Your task to perform on an android device: turn off location history Image 0: 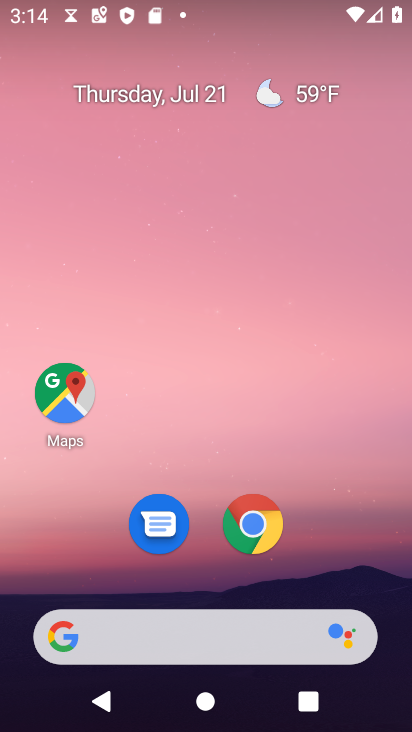
Step 0: click (60, 389)
Your task to perform on an android device: turn off location history Image 1: 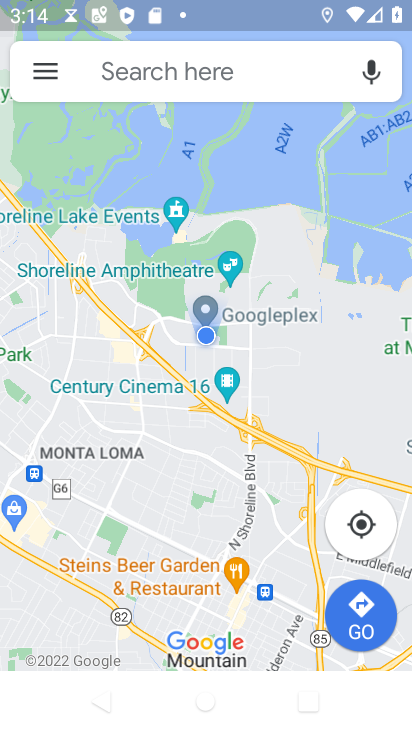
Step 1: click (52, 62)
Your task to perform on an android device: turn off location history Image 2: 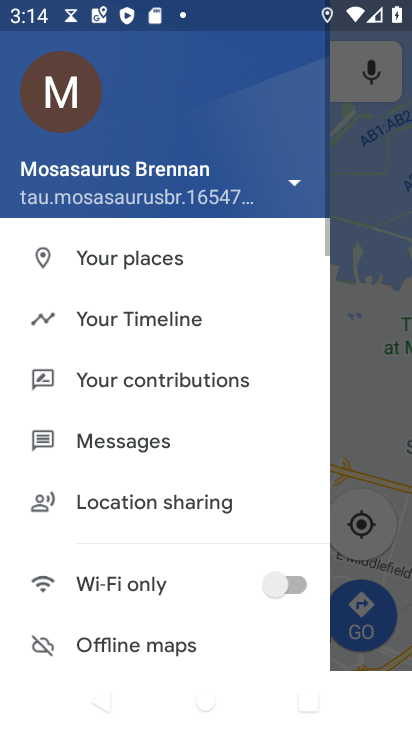
Step 2: click (181, 321)
Your task to perform on an android device: turn off location history Image 3: 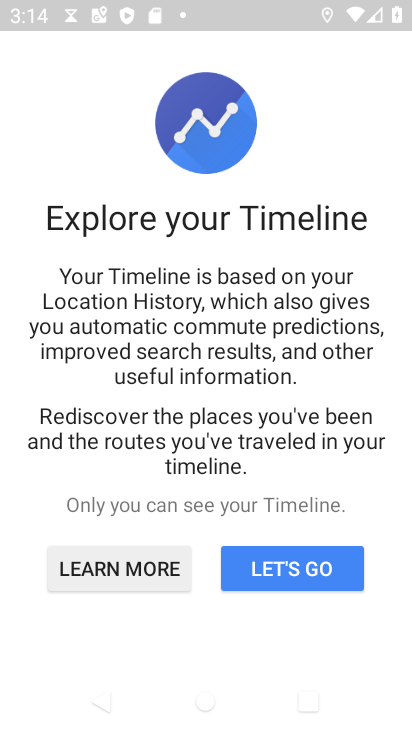
Step 3: click (274, 576)
Your task to perform on an android device: turn off location history Image 4: 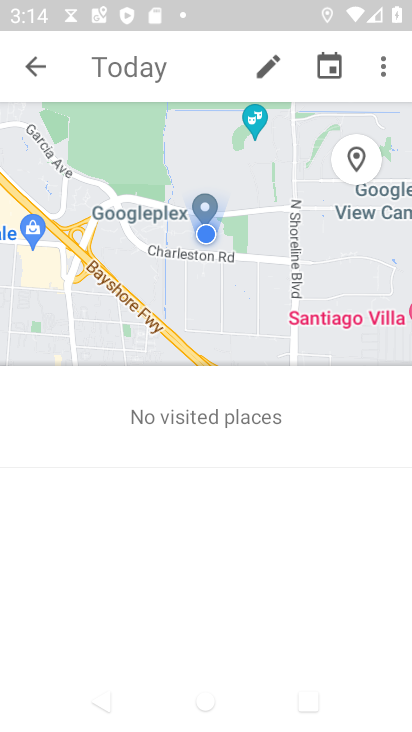
Step 4: click (383, 59)
Your task to perform on an android device: turn off location history Image 5: 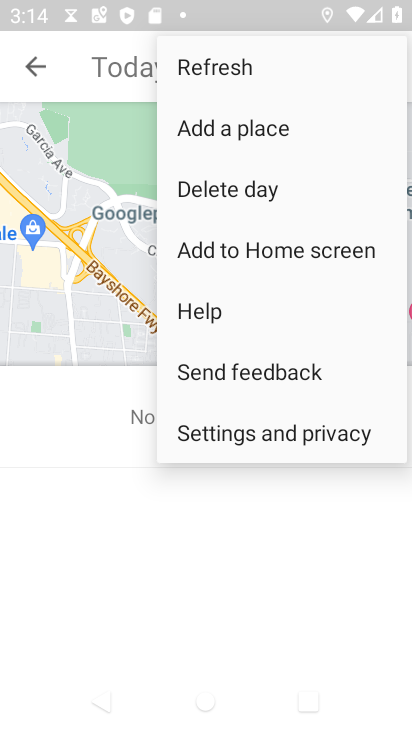
Step 5: click (234, 442)
Your task to perform on an android device: turn off location history Image 6: 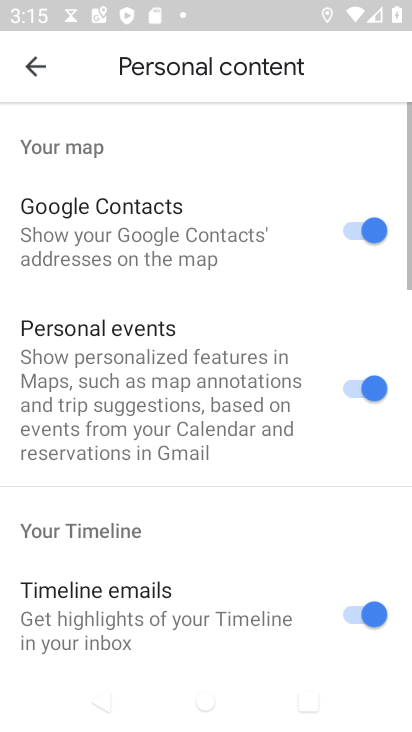
Step 6: drag from (194, 562) to (231, 53)
Your task to perform on an android device: turn off location history Image 7: 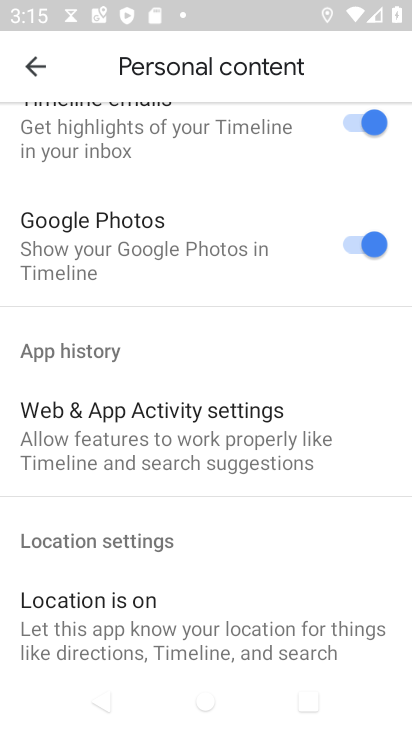
Step 7: drag from (194, 526) to (299, 126)
Your task to perform on an android device: turn off location history Image 8: 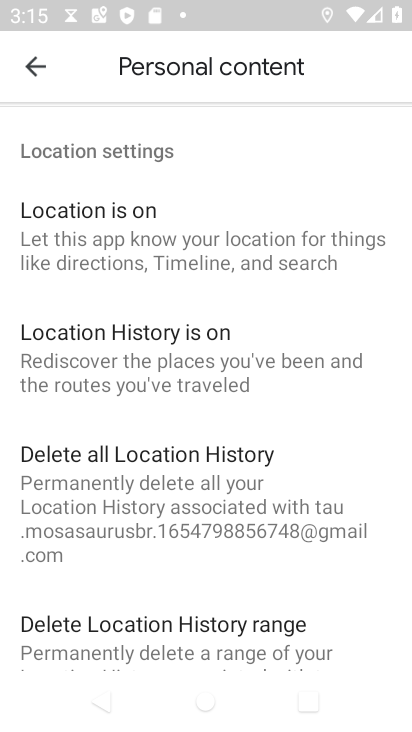
Step 8: click (196, 354)
Your task to perform on an android device: turn off location history Image 9: 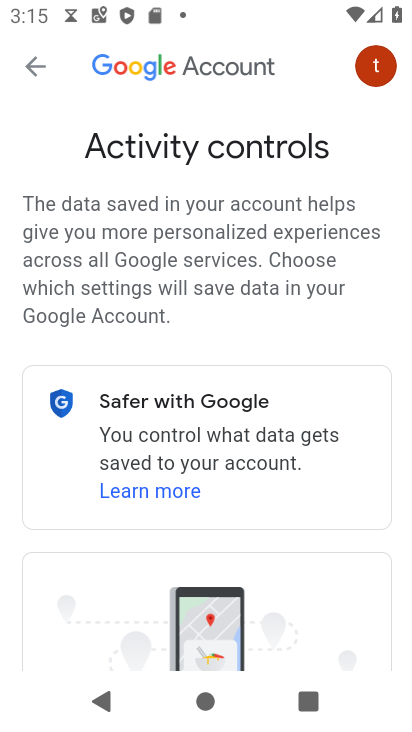
Step 9: drag from (277, 602) to (277, 41)
Your task to perform on an android device: turn off location history Image 10: 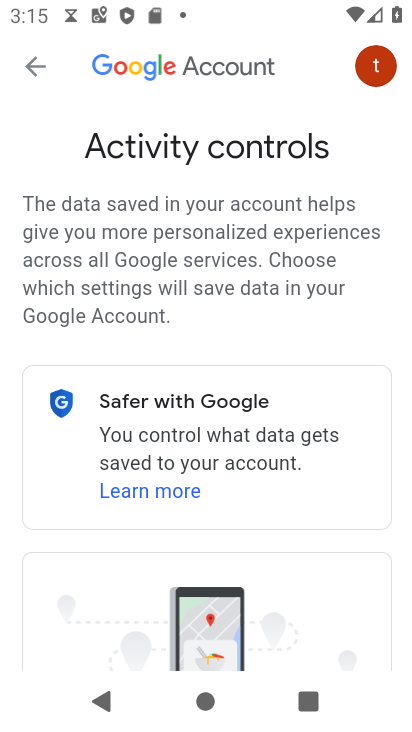
Step 10: drag from (306, 542) to (327, 63)
Your task to perform on an android device: turn off location history Image 11: 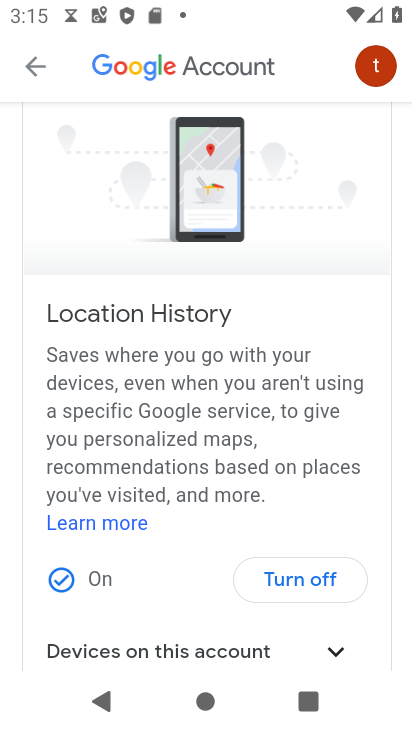
Step 11: click (316, 580)
Your task to perform on an android device: turn off location history Image 12: 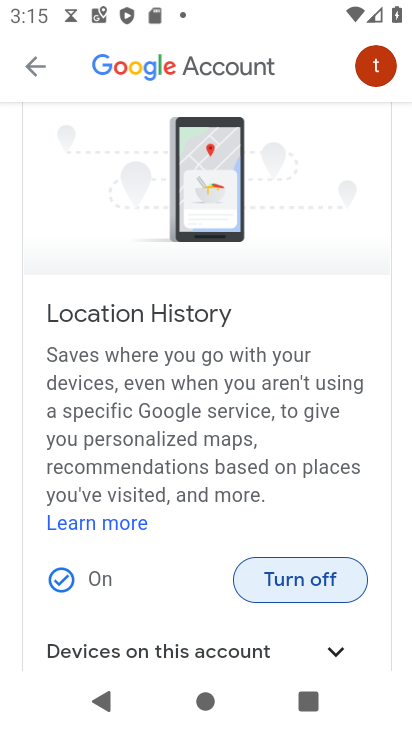
Step 12: click (316, 579)
Your task to perform on an android device: turn off location history Image 13: 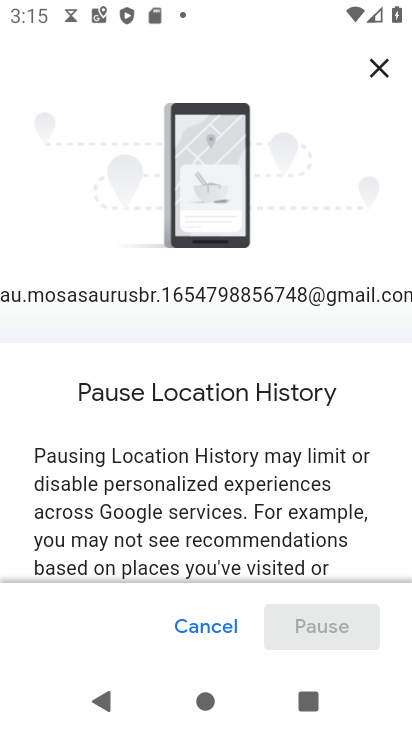
Step 13: drag from (238, 540) to (383, 33)
Your task to perform on an android device: turn off location history Image 14: 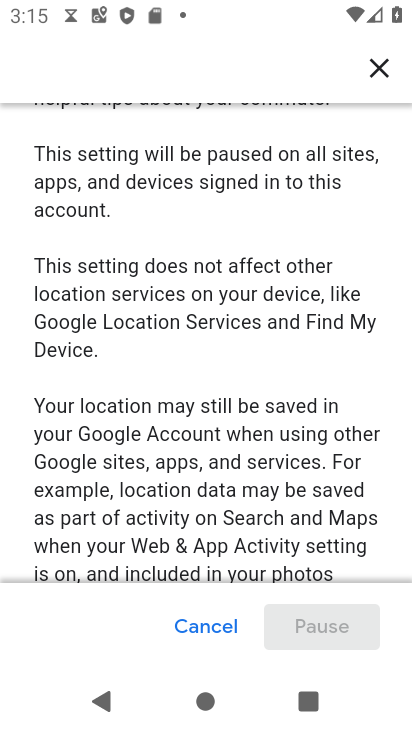
Step 14: drag from (308, 534) to (368, 121)
Your task to perform on an android device: turn off location history Image 15: 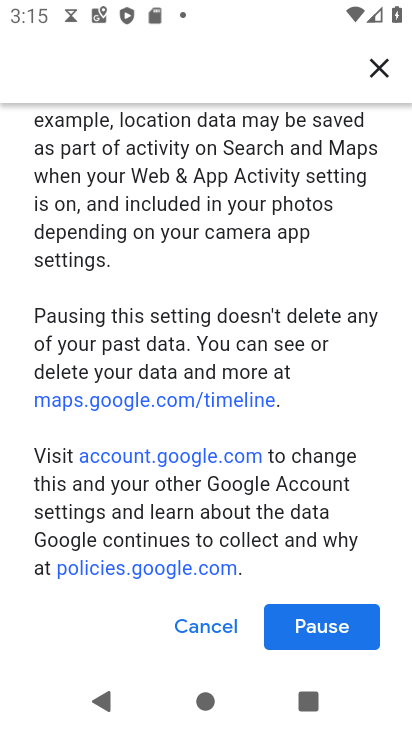
Step 15: click (317, 626)
Your task to perform on an android device: turn off location history Image 16: 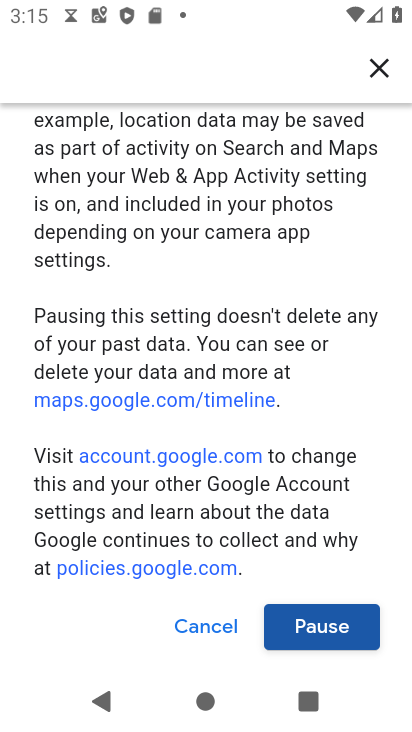
Step 16: click (336, 629)
Your task to perform on an android device: turn off location history Image 17: 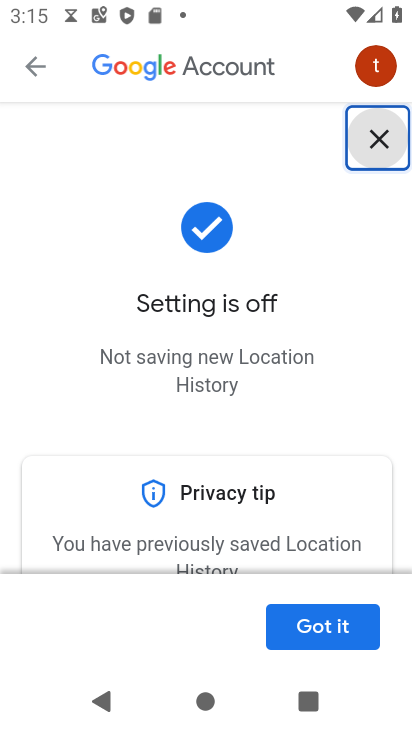
Step 17: click (319, 627)
Your task to perform on an android device: turn off location history Image 18: 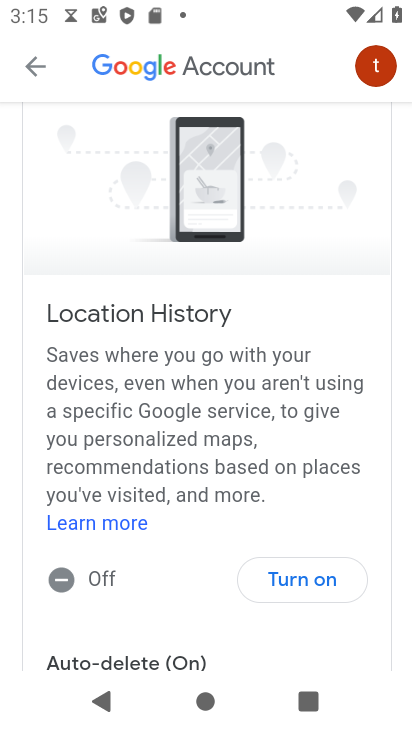
Step 18: click (334, 623)
Your task to perform on an android device: turn off location history Image 19: 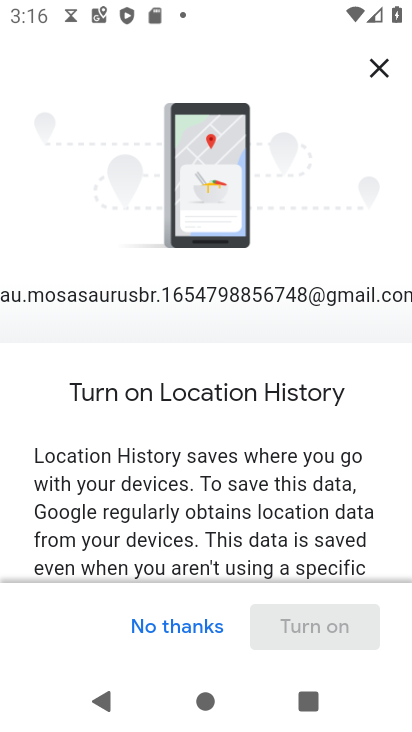
Step 19: task complete